Your task to perform on an android device: change notifications settings Image 0: 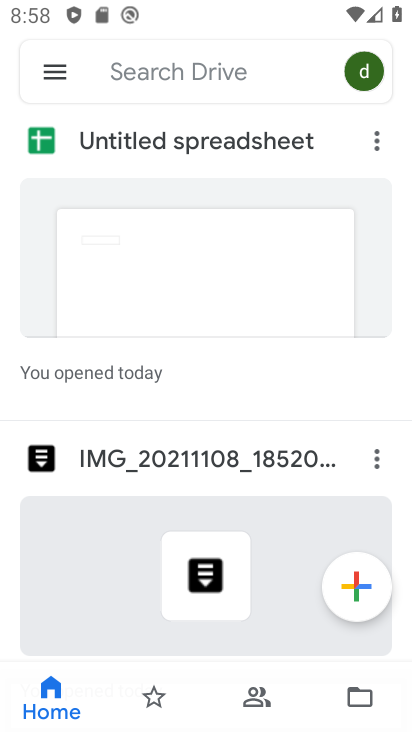
Step 0: press home button
Your task to perform on an android device: change notifications settings Image 1: 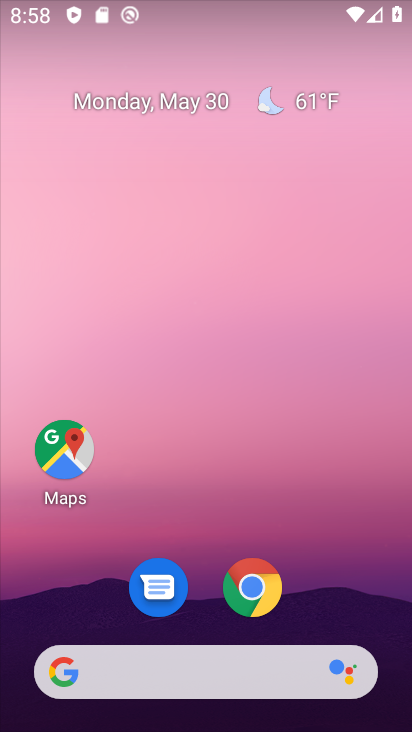
Step 1: drag from (227, 630) to (220, 59)
Your task to perform on an android device: change notifications settings Image 2: 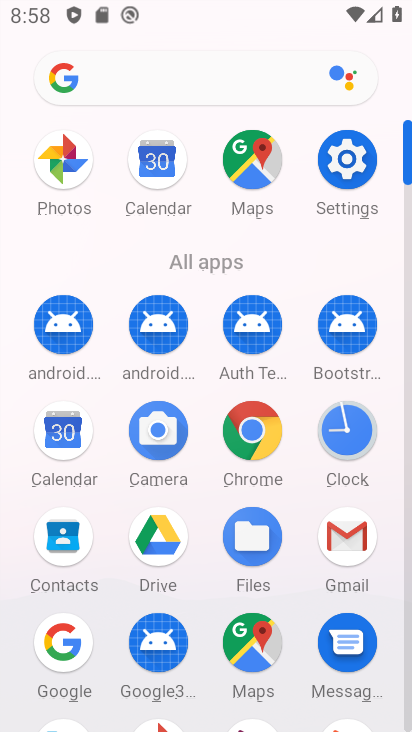
Step 2: click (332, 168)
Your task to perform on an android device: change notifications settings Image 3: 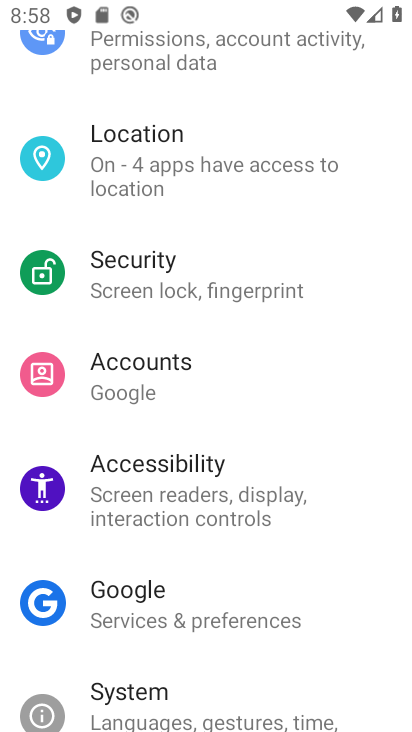
Step 3: drag from (197, 247) to (151, 615)
Your task to perform on an android device: change notifications settings Image 4: 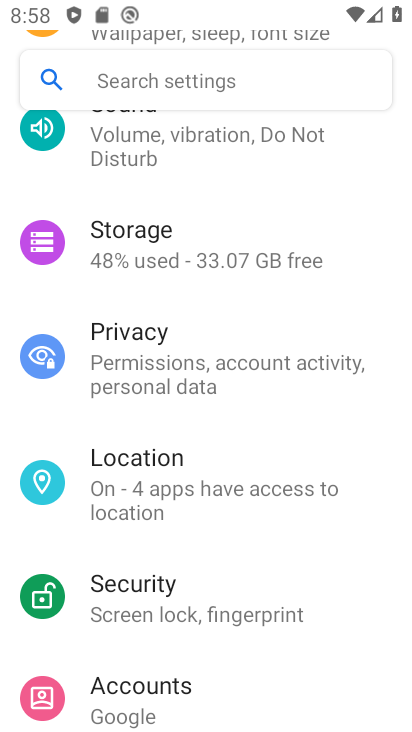
Step 4: drag from (141, 176) to (148, 594)
Your task to perform on an android device: change notifications settings Image 5: 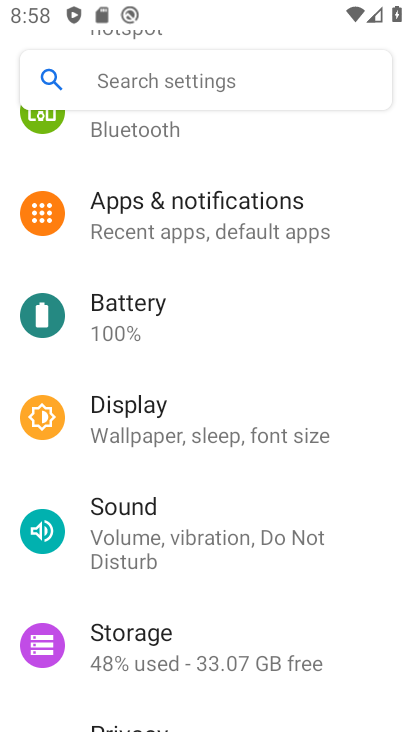
Step 5: click (154, 219)
Your task to perform on an android device: change notifications settings Image 6: 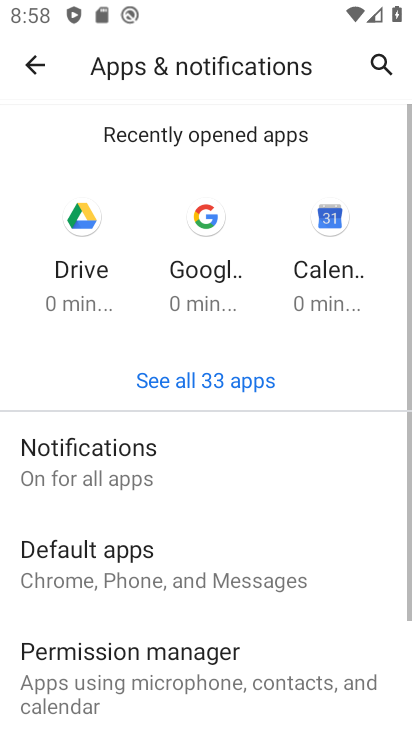
Step 6: click (145, 483)
Your task to perform on an android device: change notifications settings Image 7: 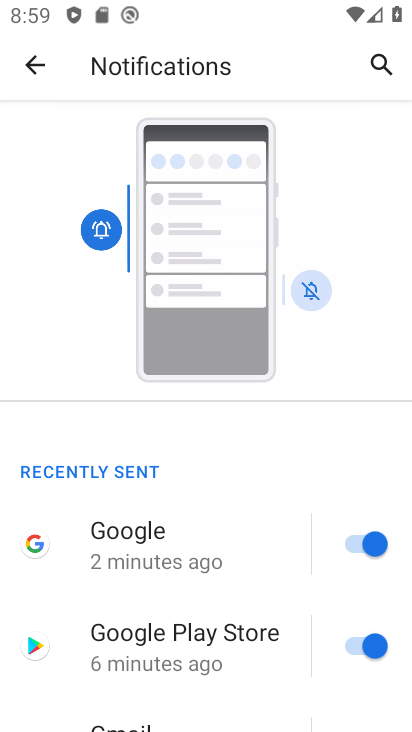
Step 7: drag from (267, 616) to (272, 26)
Your task to perform on an android device: change notifications settings Image 8: 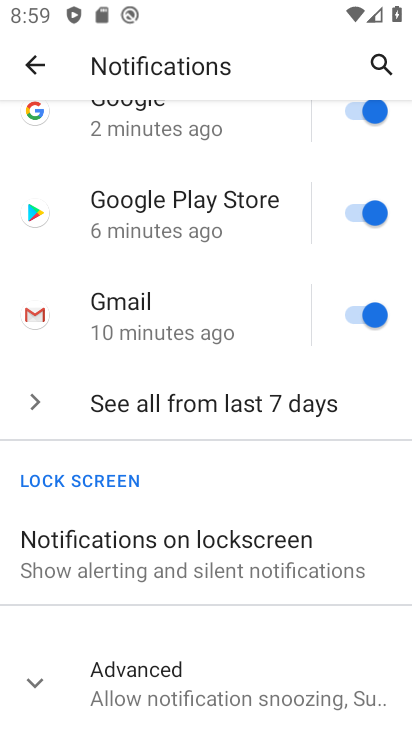
Step 8: click (171, 687)
Your task to perform on an android device: change notifications settings Image 9: 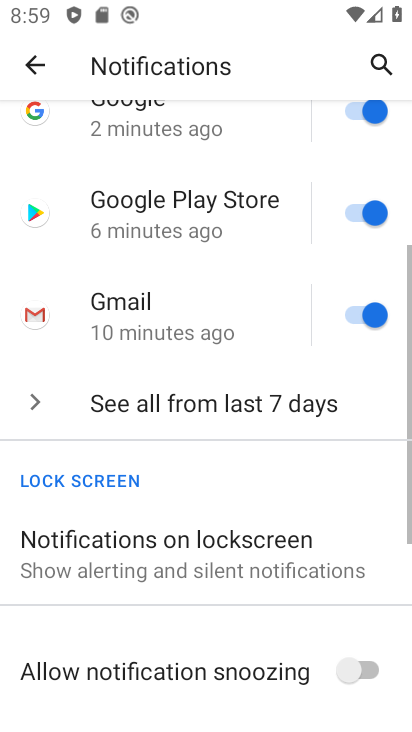
Step 9: click (204, 403)
Your task to perform on an android device: change notifications settings Image 10: 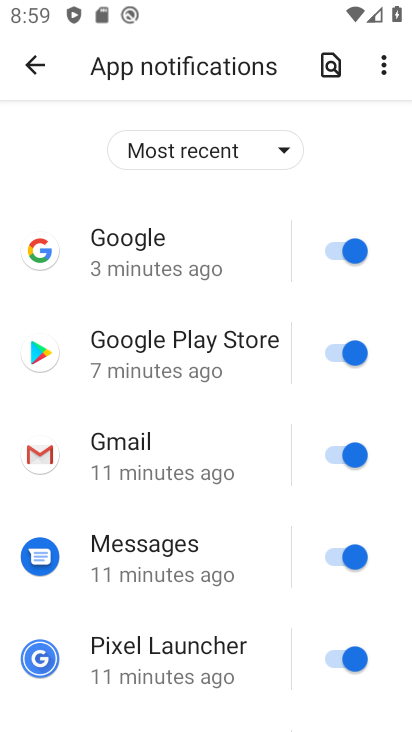
Step 10: click (208, 155)
Your task to perform on an android device: change notifications settings Image 11: 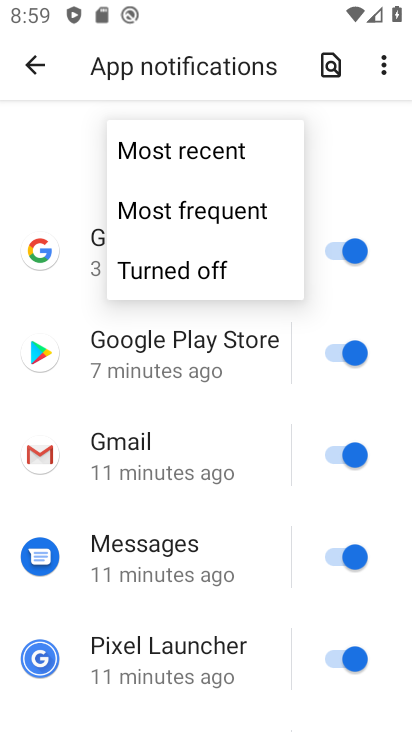
Step 11: click (200, 258)
Your task to perform on an android device: change notifications settings Image 12: 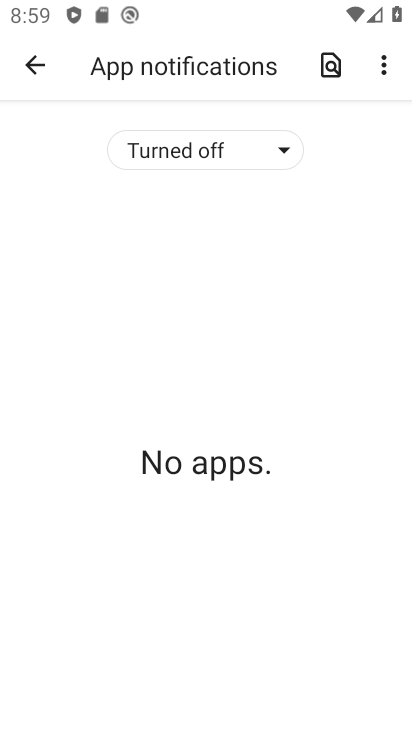
Step 12: task complete